Your task to perform on an android device: Open Google Chrome Image 0: 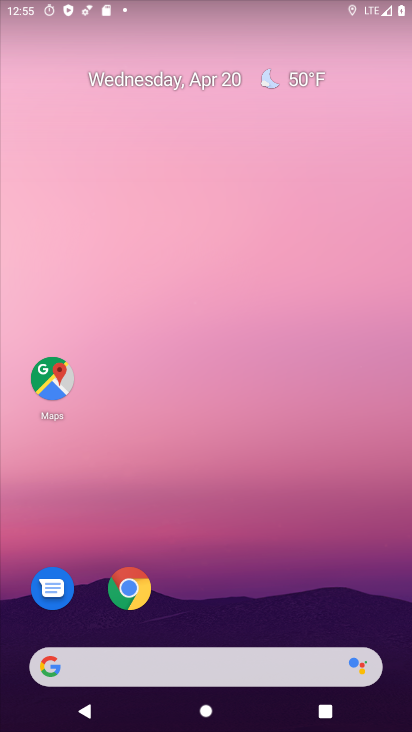
Step 0: click (123, 587)
Your task to perform on an android device: Open Google Chrome Image 1: 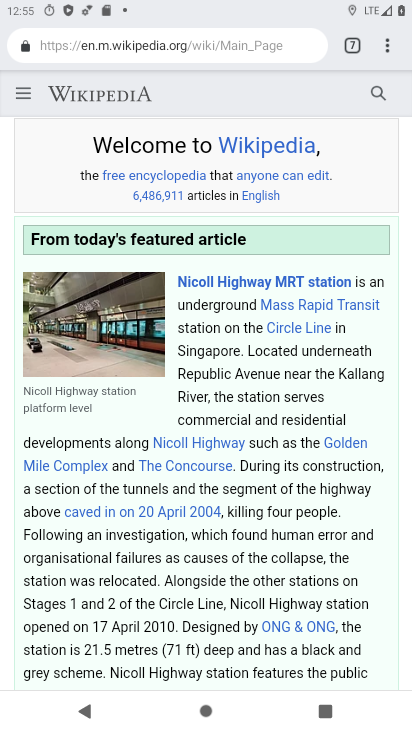
Step 1: task complete